Your task to perform on an android device: Do I have any events tomorrow? Image 0: 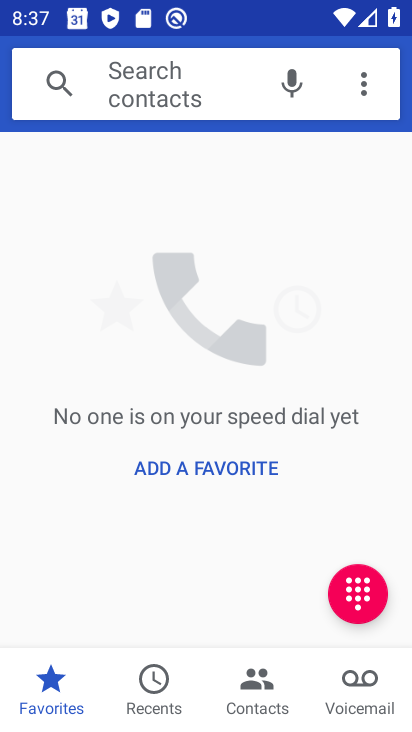
Step 0: press back button
Your task to perform on an android device: Do I have any events tomorrow? Image 1: 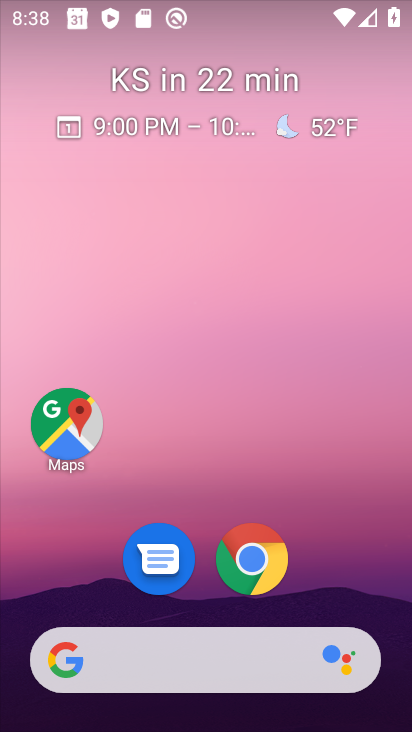
Step 1: drag from (321, 558) to (235, 9)
Your task to perform on an android device: Do I have any events tomorrow? Image 2: 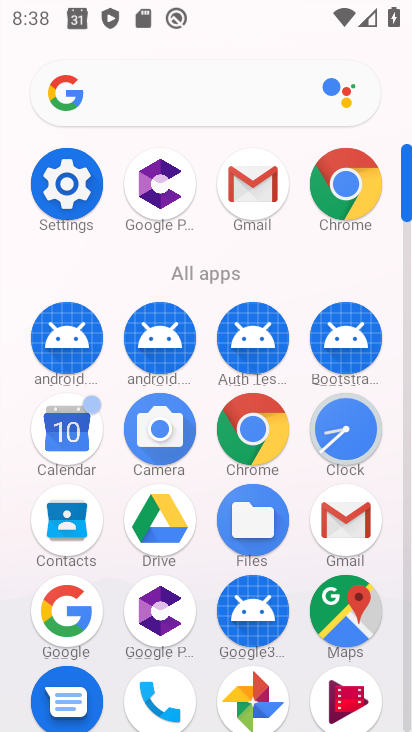
Step 2: drag from (0, 558) to (18, 218)
Your task to perform on an android device: Do I have any events tomorrow? Image 3: 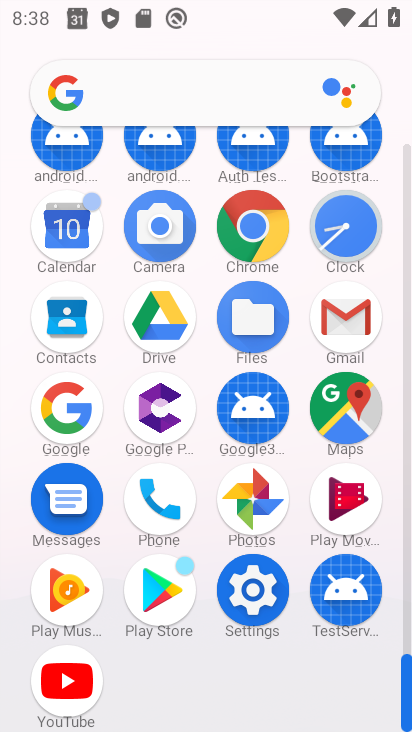
Step 3: click (77, 219)
Your task to perform on an android device: Do I have any events tomorrow? Image 4: 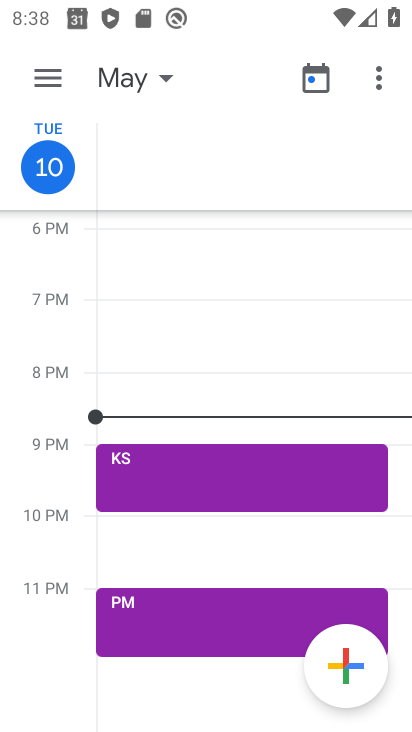
Step 4: click (49, 69)
Your task to perform on an android device: Do I have any events tomorrow? Image 5: 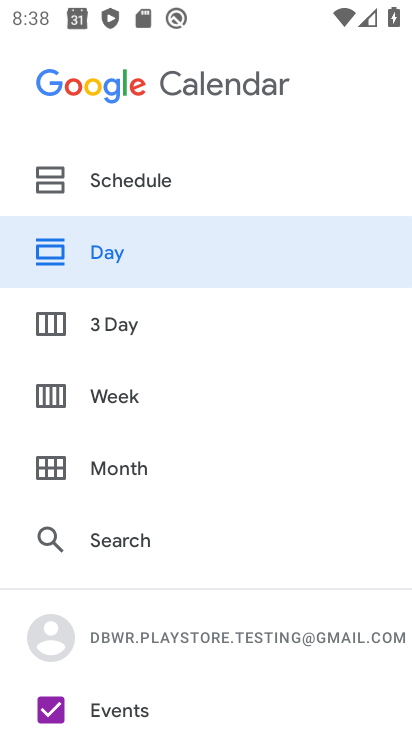
Step 5: drag from (222, 276) to (226, 563)
Your task to perform on an android device: Do I have any events tomorrow? Image 6: 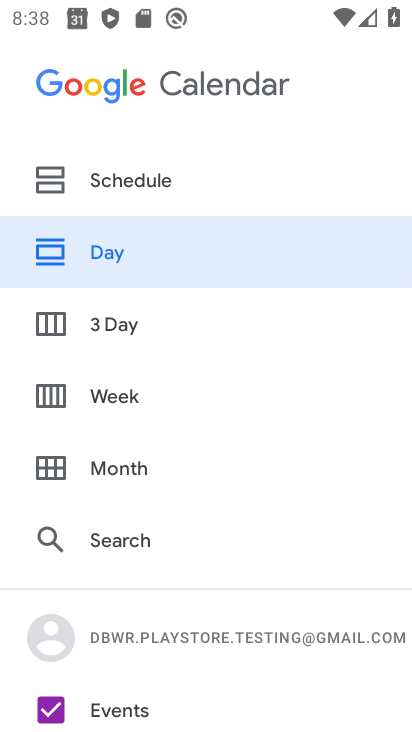
Step 6: drag from (241, 523) to (231, 229)
Your task to perform on an android device: Do I have any events tomorrow? Image 7: 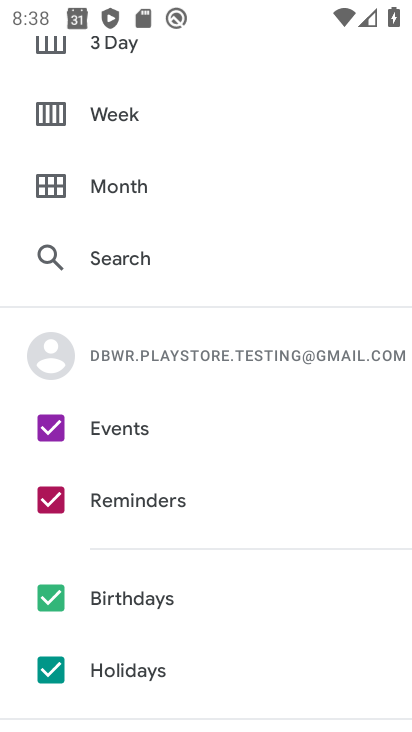
Step 7: click (55, 675)
Your task to perform on an android device: Do I have any events tomorrow? Image 8: 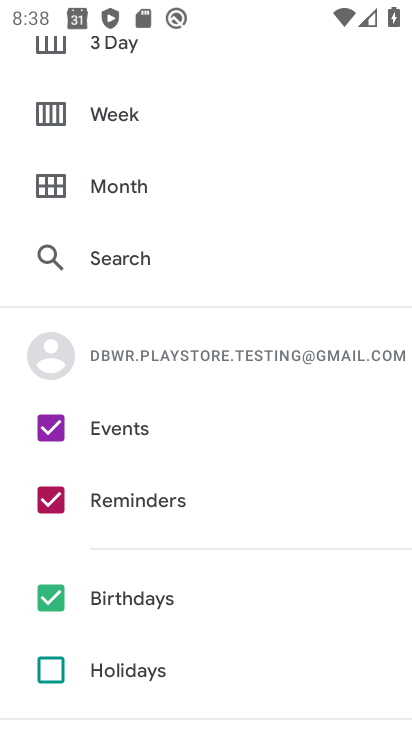
Step 8: click (58, 594)
Your task to perform on an android device: Do I have any events tomorrow? Image 9: 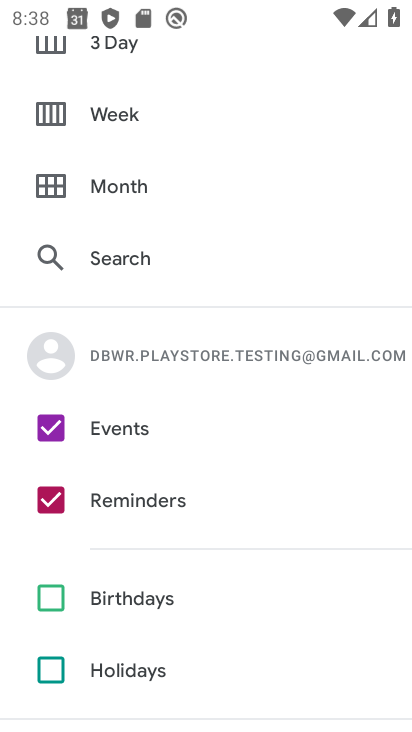
Step 9: drag from (203, 194) to (203, 591)
Your task to perform on an android device: Do I have any events tomorrow? Image 10: 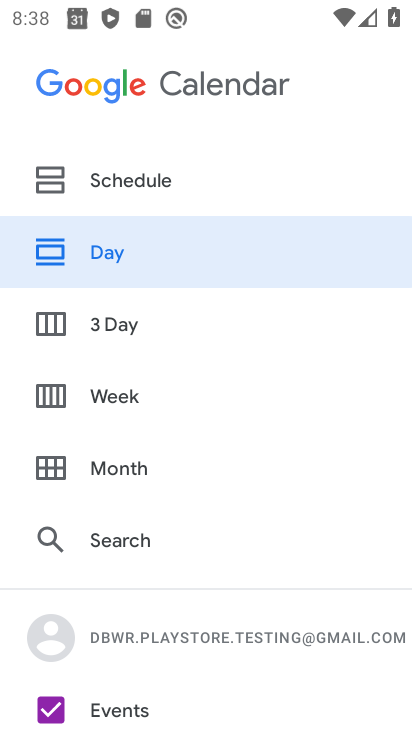
Step 10: click (129, 171)
Your task to perform on an android device: Do I have any events tomorrow? Image 11: 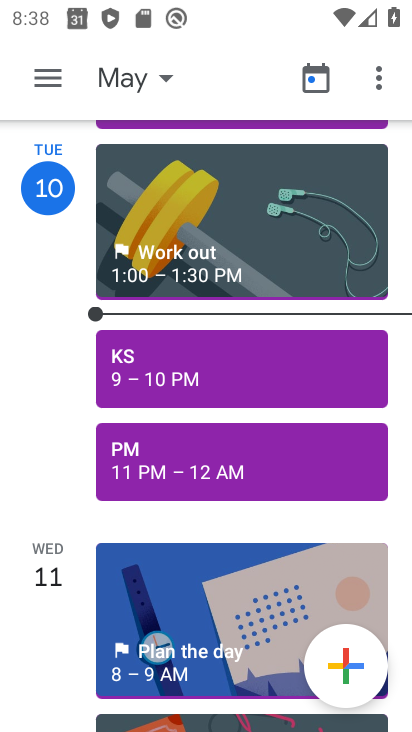
Step 11: task complete